Your task to perform on an android device: Open the web browser Image 0: 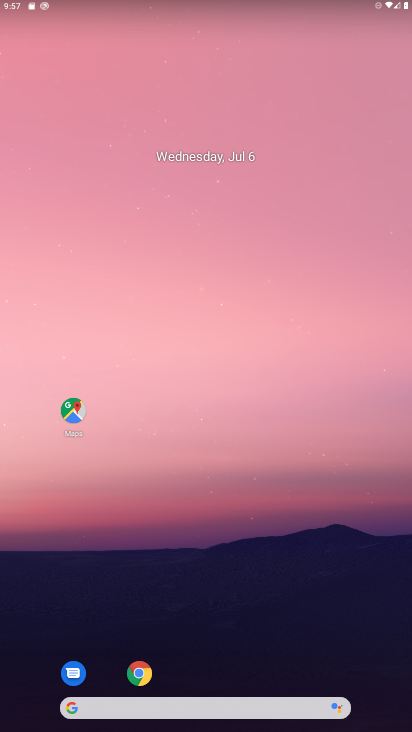
Step 0: click (130, 677)
Your task to perform on an android device: Open the web browser Image 1: 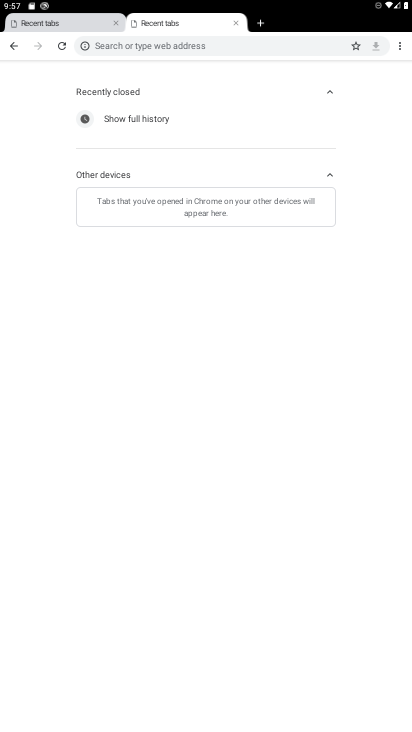
Step 1: task complete